Your task to perform on an android device: Go to network settings Image 0: 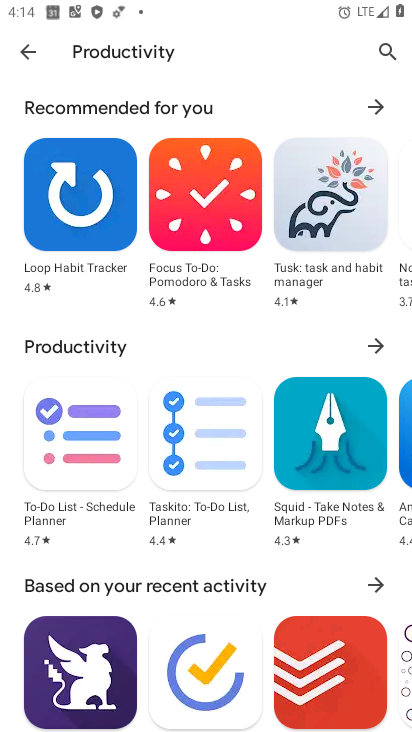
Step 0: press home button
Your task to perform on an android device: Go to network settings Image 1: 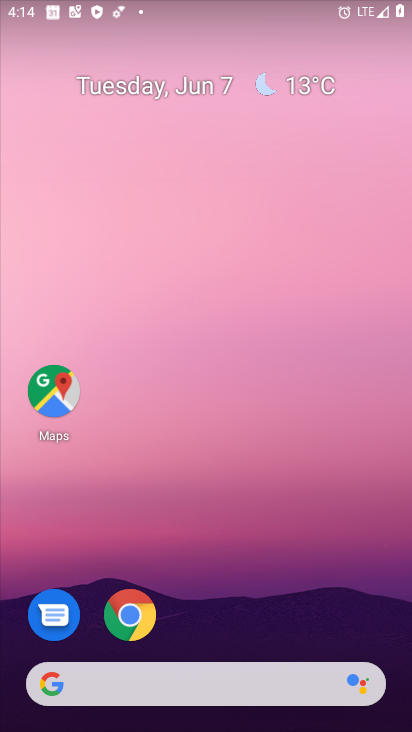
Step 1: drag from (219, 711) to (209, 162)
Your task to perform on an android device: Go to network settings Image 2: 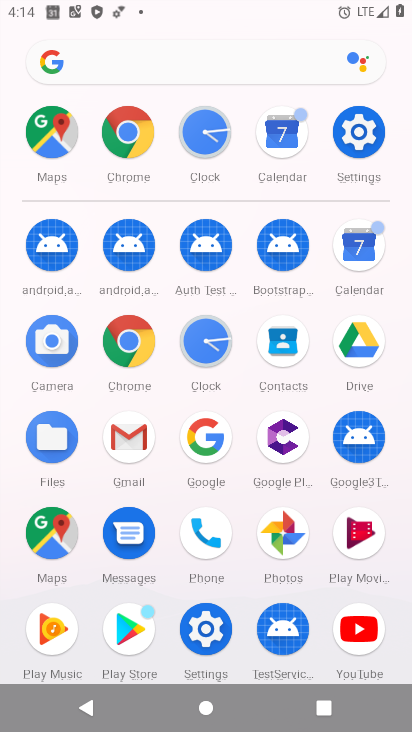
Step 2: click (351, 137)
Your task to perform on an android device: Go to network settings Image 3: 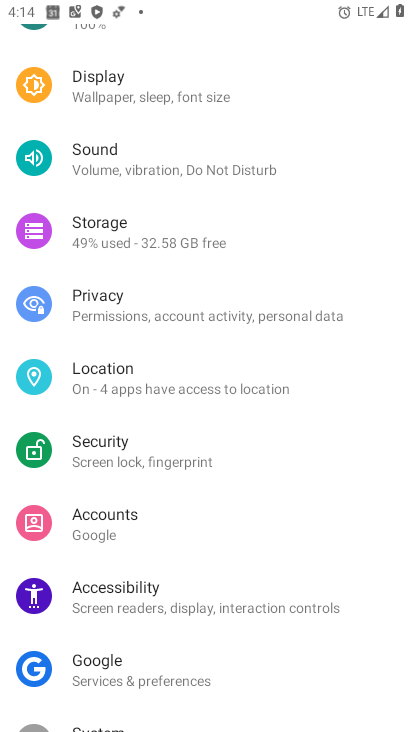
Step 3: drag from (204, 147) to (194, 560)
Your task to perform on an android device: Go to network settings Image 4: 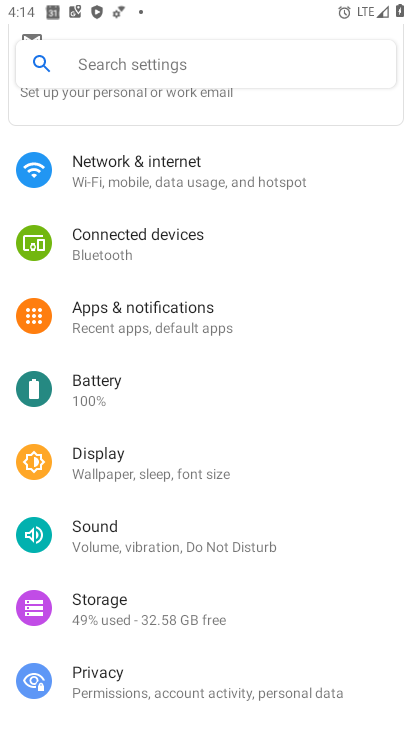
Step 4: drag from (155, 187) to (182, 548)
Your task to perform on an android device: Go to network settings Image 5: 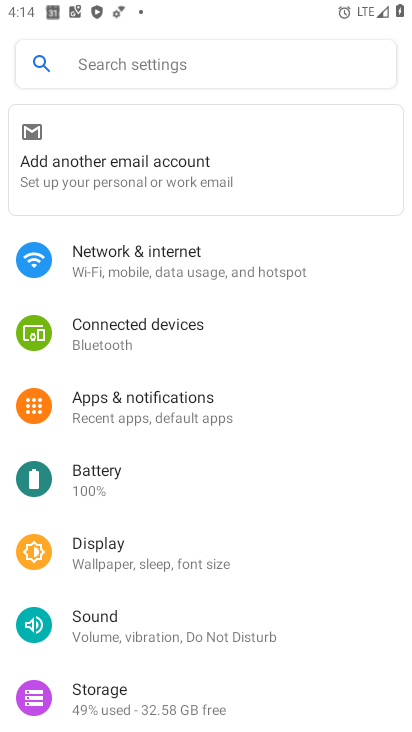
Step 5: click (131, 260)
Your task to perform on an android device: Go to network settings Image 6: 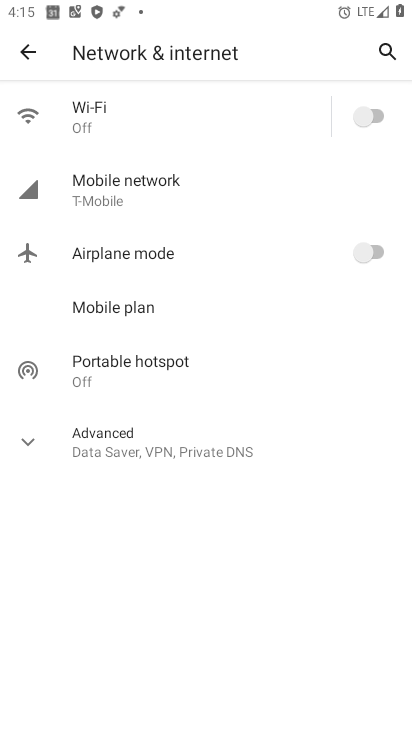
Step 6: click (109, 184)
Your task to perform on an android device: Go to network settings Image 7: 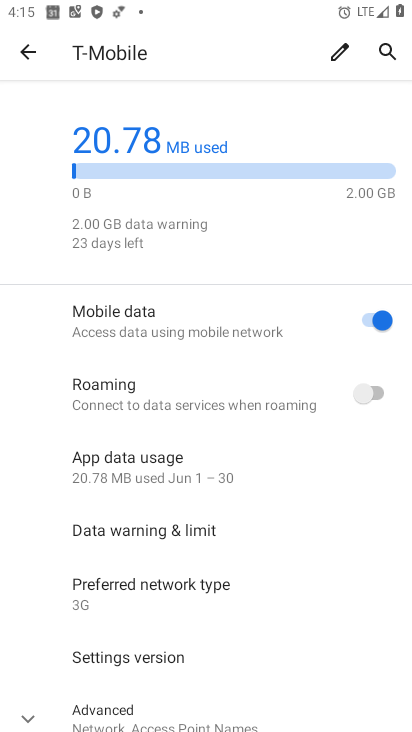
Step 7: task complete